Your task to perform on an android device: Open the web browser Image 0: 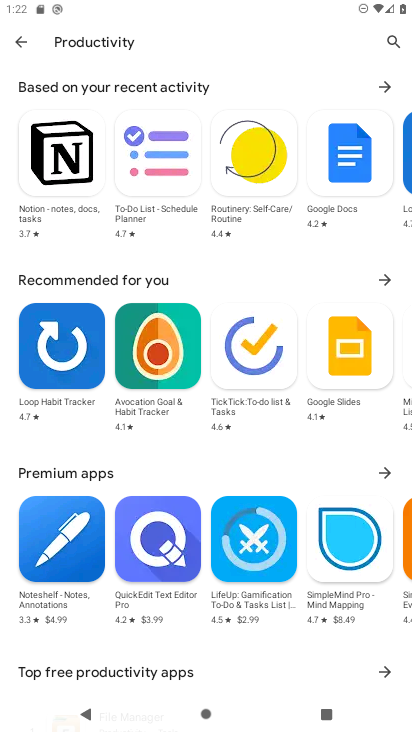
Step 0: press home button
Your task to perform on an android device: Open the web browser Image 1: 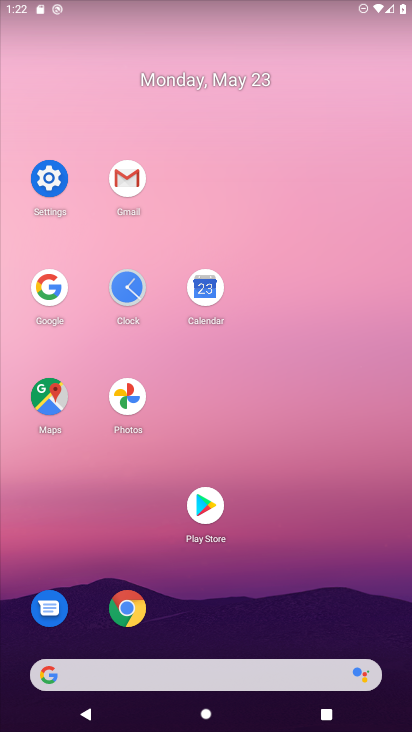
Step 1: click (135, 612)
Your task to perform on an android device: Open the web browser Image 2: 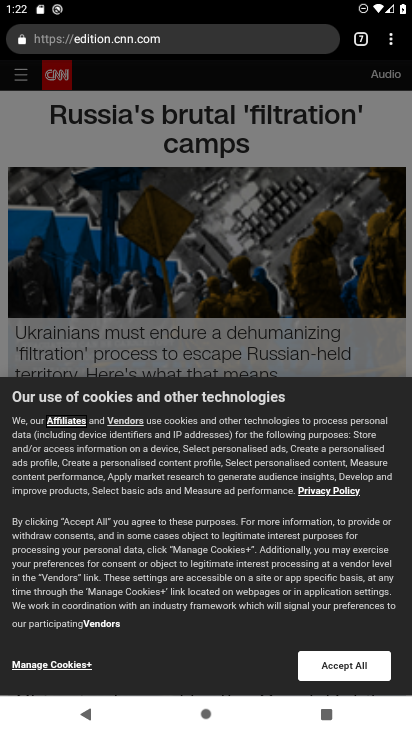
Step 2: task complete